Your task to perform on an android device: change the clock display to show seconds Image 0: 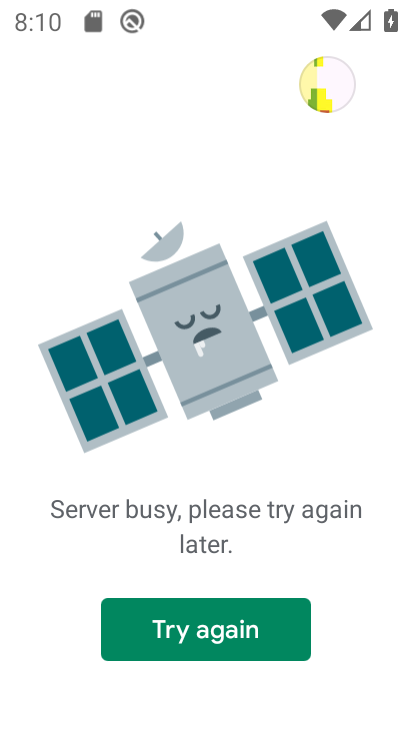
Step 0: press home button
Your task to perform on an android device: change the clock display to show seconds Image 1: 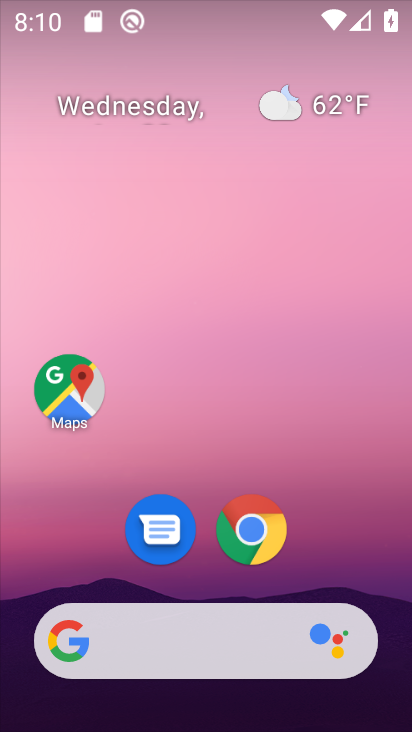
Step 1: drag from (186, 575) to (183, 85)
Your task to perform on an android device: change the clock display to show seconds Image 2: 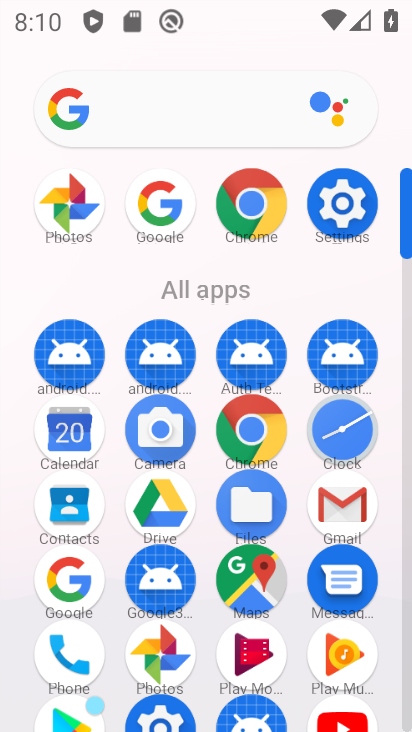
Step 2: click (355, 440)
Your task to perform on an android device: change the clock display to show seconds Image 3: 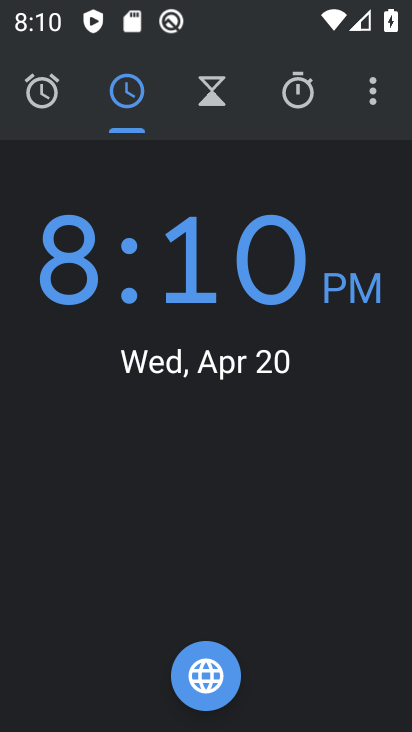
Step 3: click (373, 100)
Your task to perform on an android device: change the clock display to show seconds Image 4: 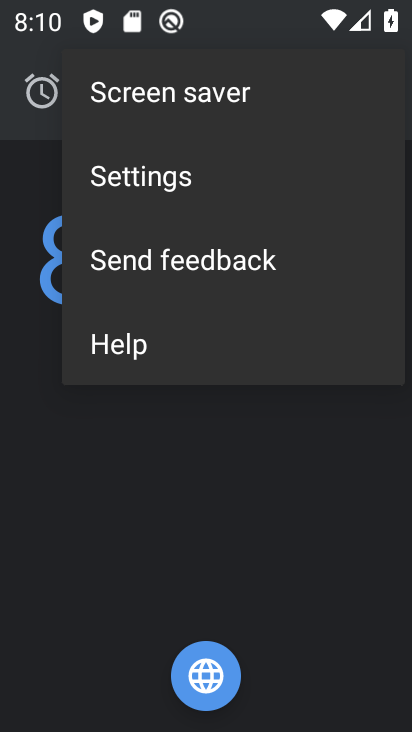
Step 4: click (190, 168)
Your task to perform on an android device: change the clock display to show seconds Image 5: 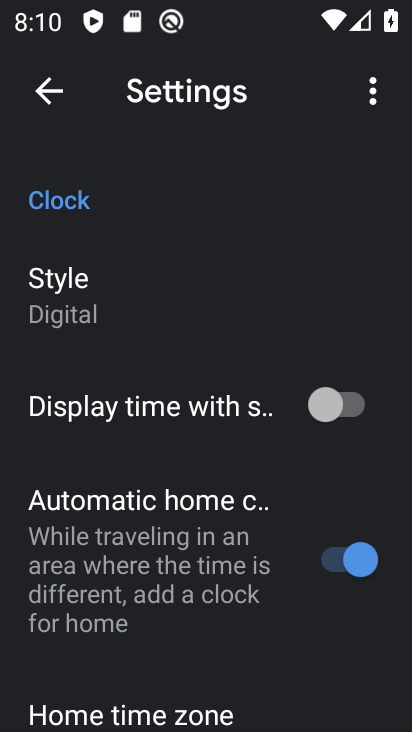
Step 5: click (328, 401)
Your task to perform on an android device: change the clock display to show seconds Image 6: 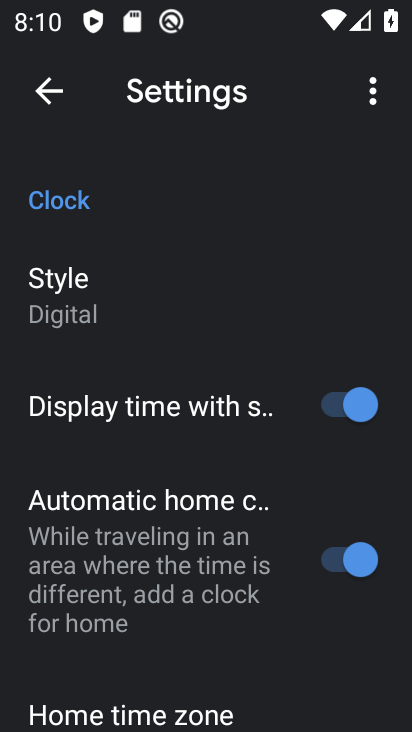
Step 6: task complete